Your task to perform on an android device: See recent photos Image 0: 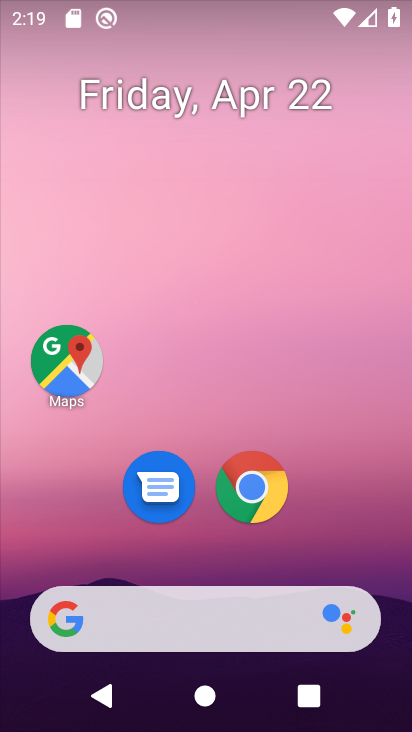
Step 0: drag from (195, 491) to (192, 152)
Your task to perform on an android device: See recent photos Image 1: 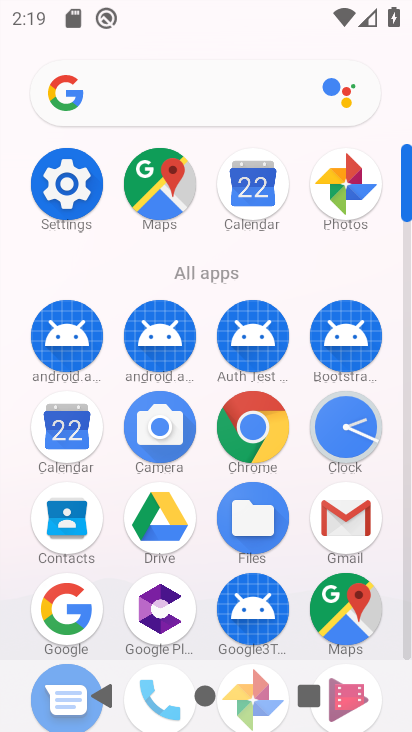
Step 1: click (354, 205)
Your task to perform on an android device: See recent photos Image 2: 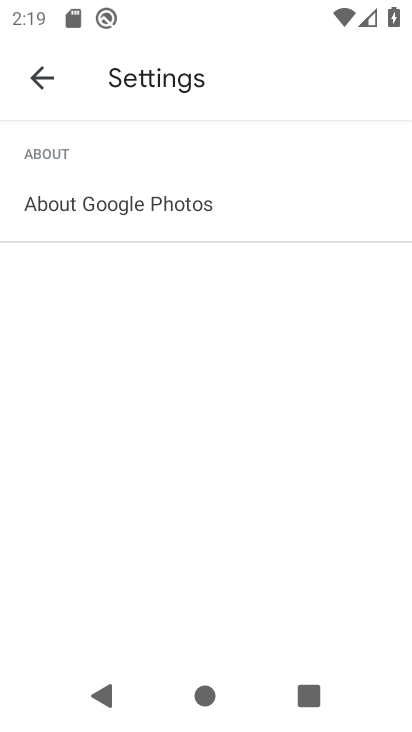
Step 2: click (44, 87)
Your task to perform on an android device: See recent photos Image 3: 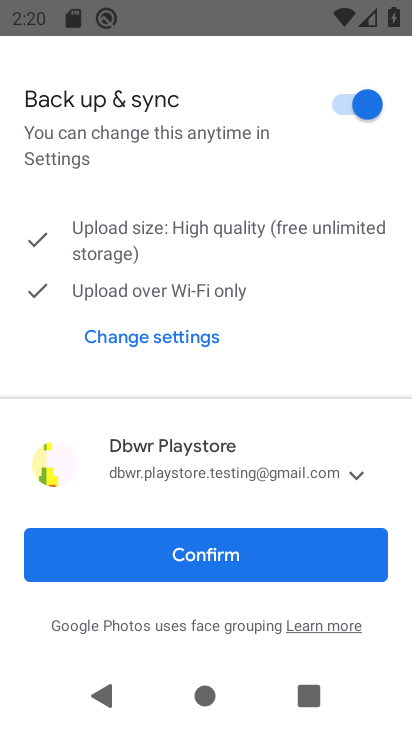
Step 3: click (278, 567)
Your task to perform on an android device: See recent photos Image 4: 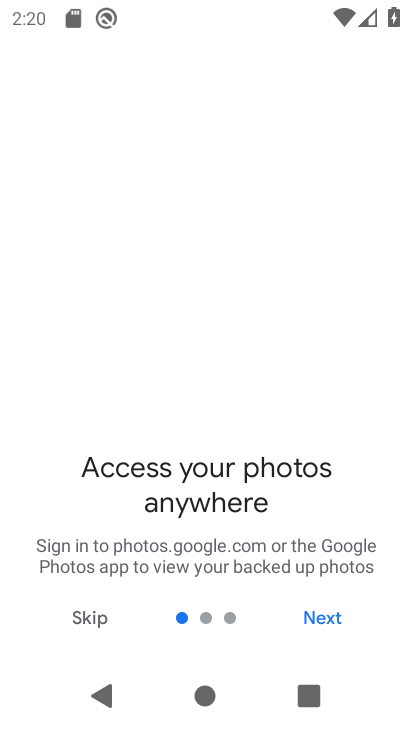
Step 4: click (93, 615)
Your task to perform on an android device: See recent photos Image 5: 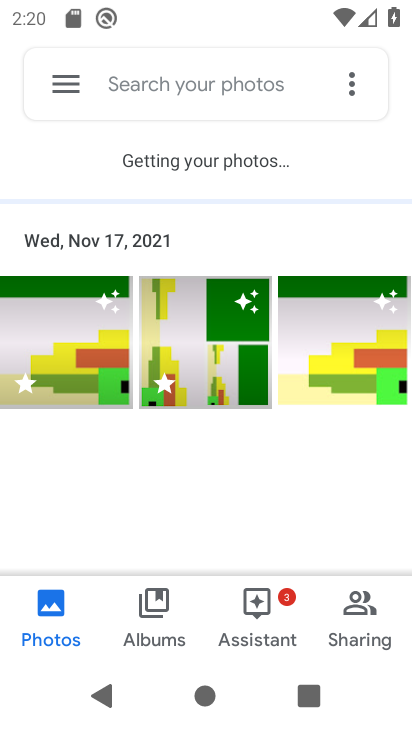
Step 5: click (86, 377)
Your task to perform on an android device: See recent photos Image 6: 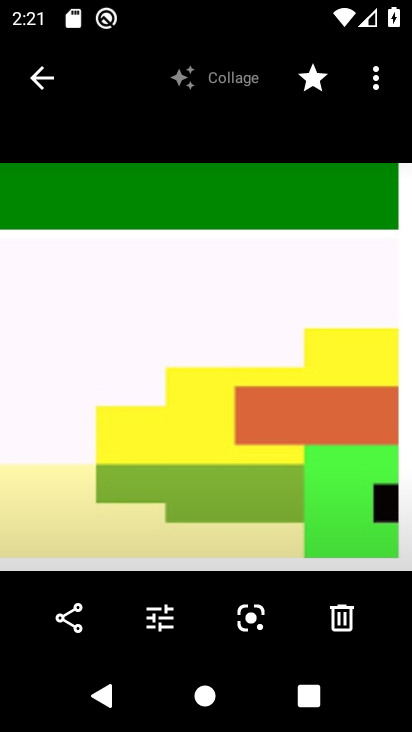
Step 6: task complete